Your task to perform on an android device: turn off location history Image 0: 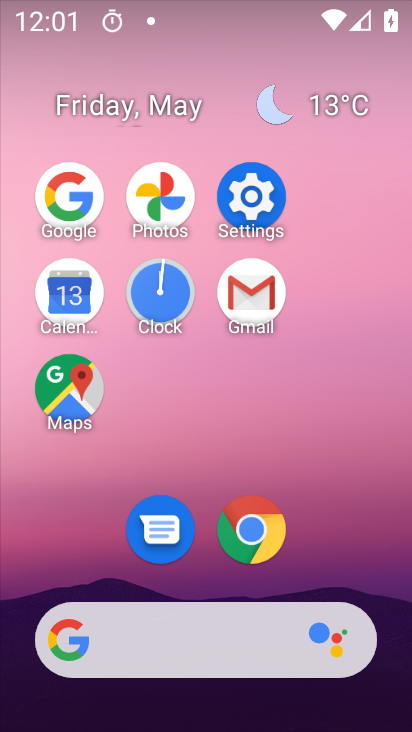
Step 0: click (241, 197)
Your task to perform on an android device: turn off location history Image 1: 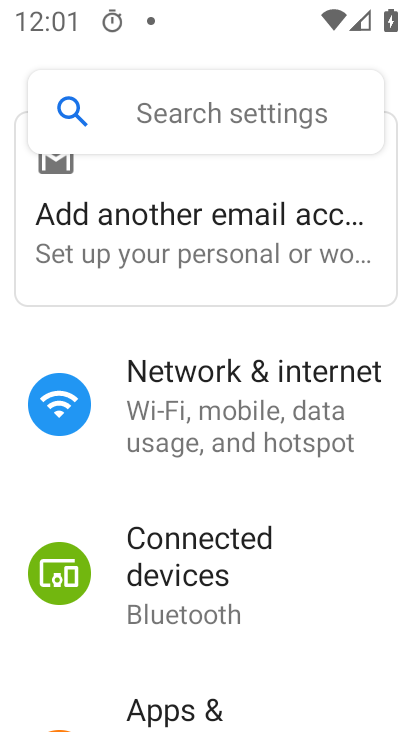
Step 1: drag from (285, 620) to (294, 183)
Your task to perform on an android device: turn off location history Image 2: 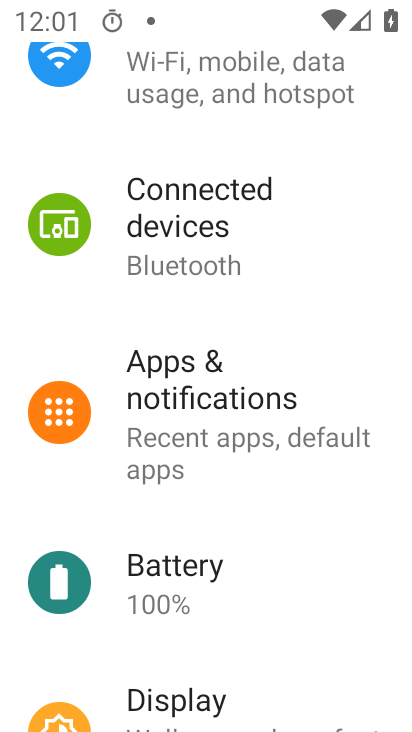
Step 2: drag from (272, 653) to (237, 267)
Your task to perform on an android device: turn off location history Image 3: 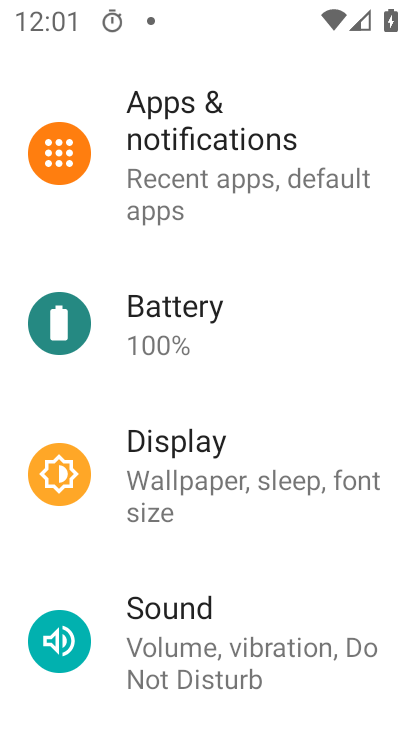
Step 3: drag from (278, 625) to (247, 268)
Your task to perform on an android device: turn off location history Image 4: 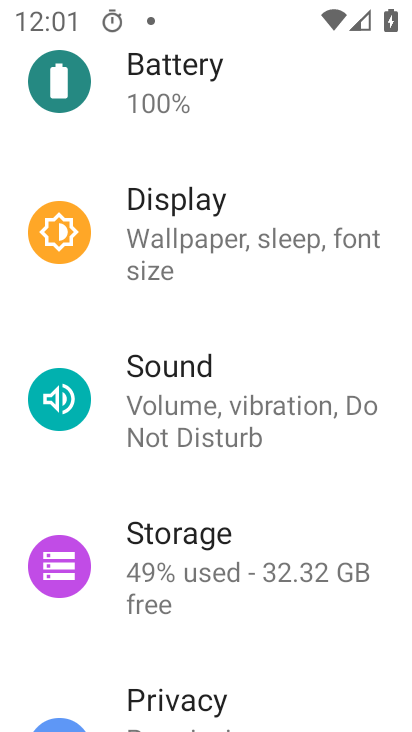
Step 4: drag from (237, 671) to (246, 268)
Your task to perform on an android device: turn off location history Image 5: 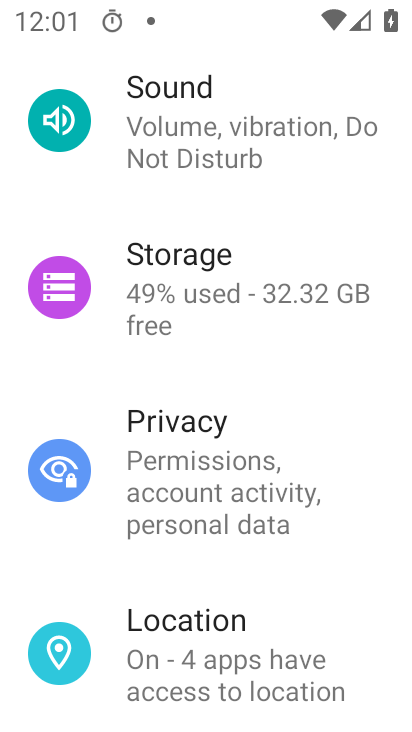
Step 5: click (256, 650)
Your task to perform on an android device: turn off location history Image 6: 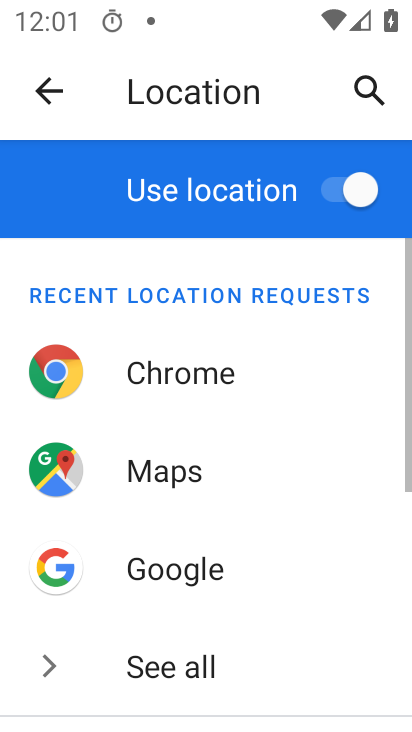
Step 6: drag from (260, 613) to (283, 171)
Your task to perform on an android device: turn off location history Image 7: 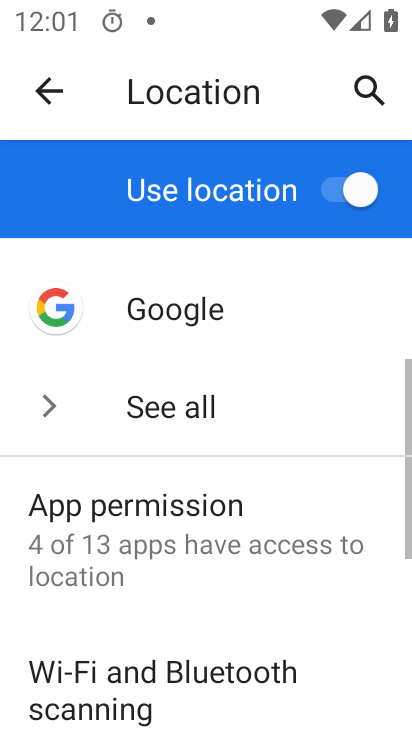
Step 7: drag from (260, 586) to (272, 188)
Your task to perform on an android device: turn off location history Image 8: 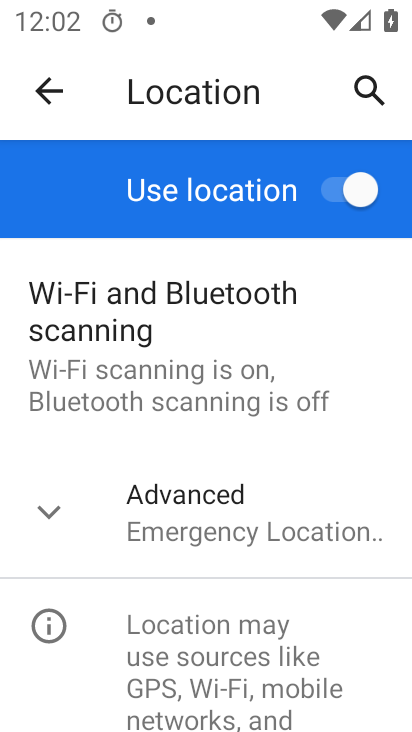
Step 8: click (220, 541)
Your task to perform on an android device: turn off location history Image 9: 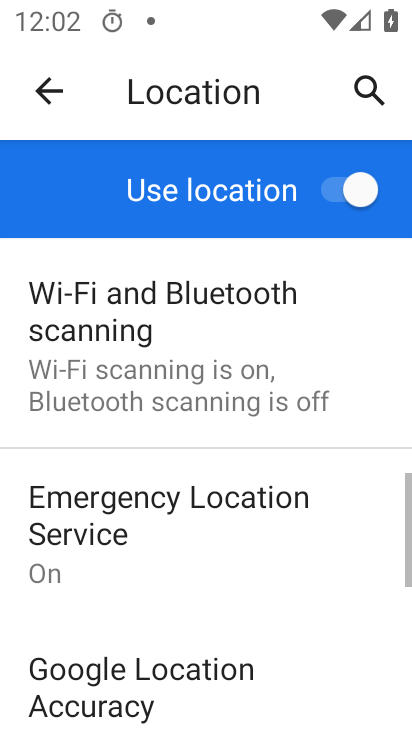
Step 9: drag from (230, 605) to (216, 233)
Your task to perform on an android device: turn off location history Image 10: 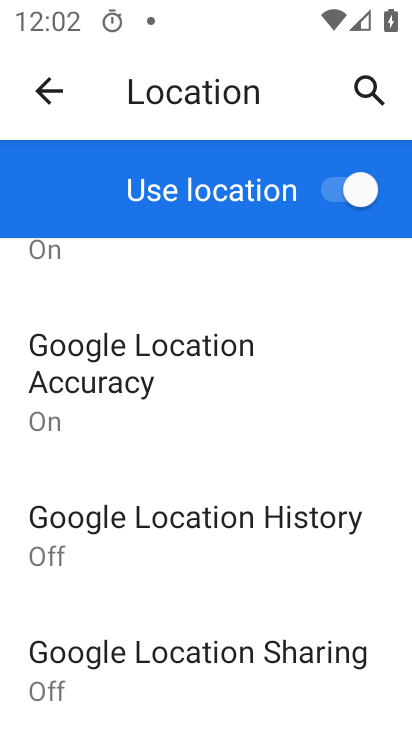
Step 10: click (226, 508)
Your task to perform on an android device: turn off location history Image 11: 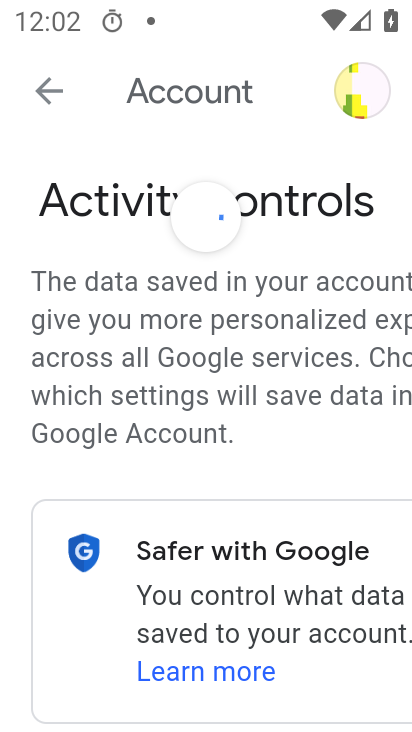
Step 11: task complete